Your task to perform on an android device: Go to internet settings Image 0: 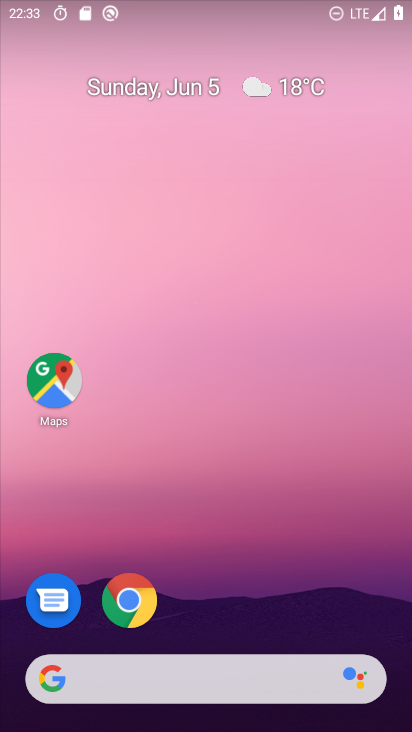
Step 0: drag from (289, 522) to (210, 162)
Your task to perform on an android device: Go to internet settings Image 1: 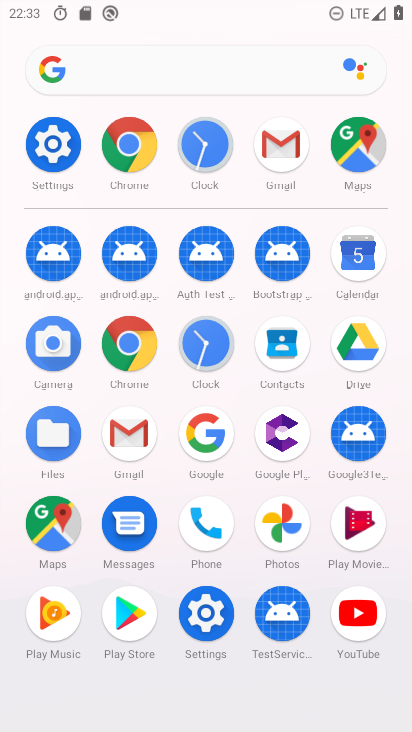
Step 1: click (56, 138)
Your task to perform on an android device: Go to internet settings Image 2: 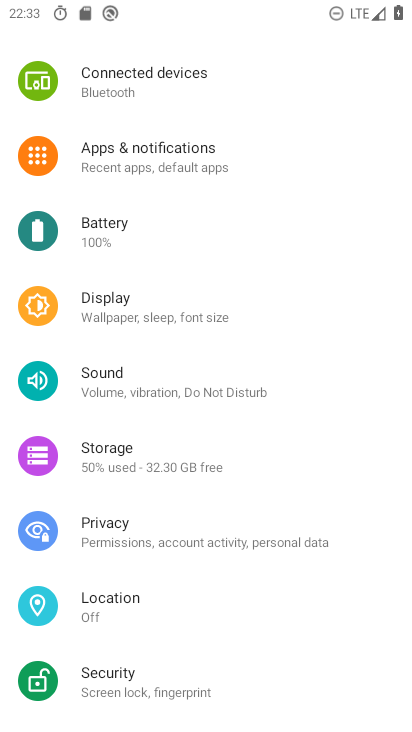
Step 2: drag from (178, 94) to (197, 379)
Your task to perform on an android device: Go to internet settings Image 3: 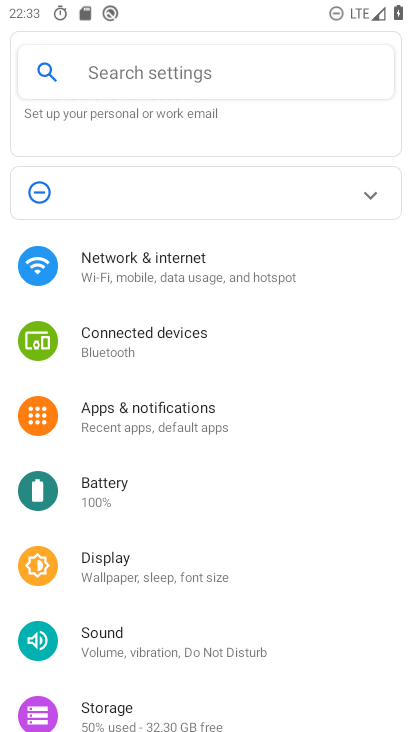
Step 3: click (173, 257)
Your task to perform on an android device: Go to internet settings Image 4: 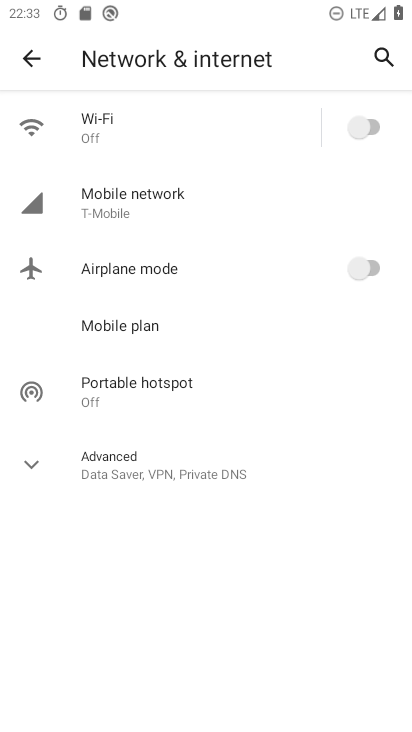
Step 4: task complete